Your task to perform on an android device: find which apps use the phone's location Image 0: 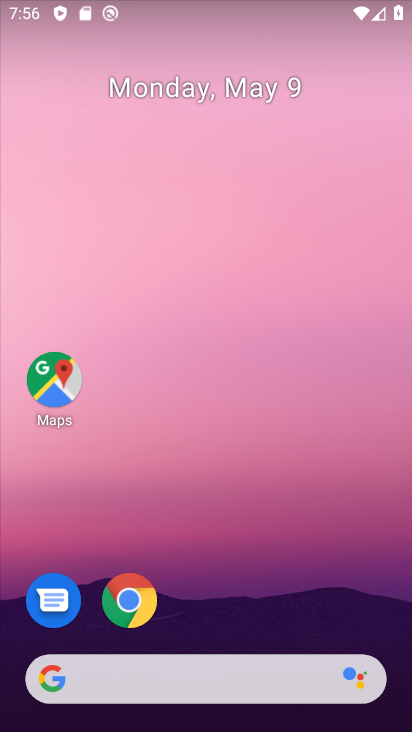
Step 0: drag from (255, 563) to (237, 51)
Your task to perform on an android device: find which apps use the phone's location Image 1: 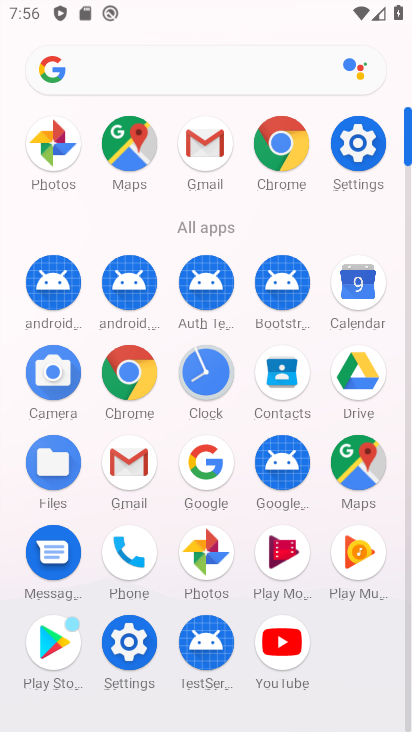
Step 1: drag from (11, 594) to (28, 313)
Your task to perform on an android device: find which apps use the phone's location Image 2: 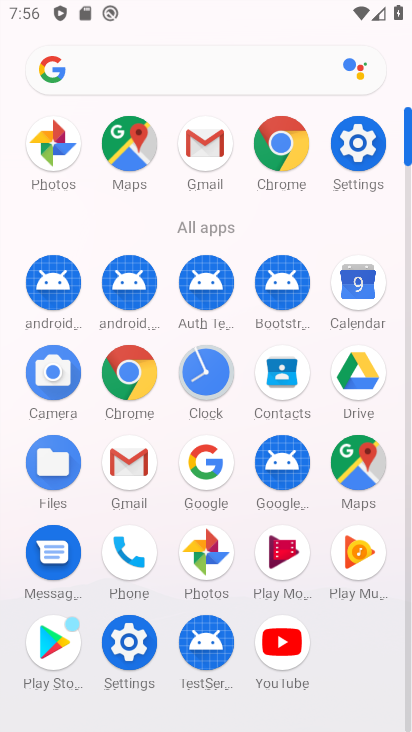
Step 2: click (129, 641)
Your task to perform on an android device: find which apps use the phone's location Image 3: 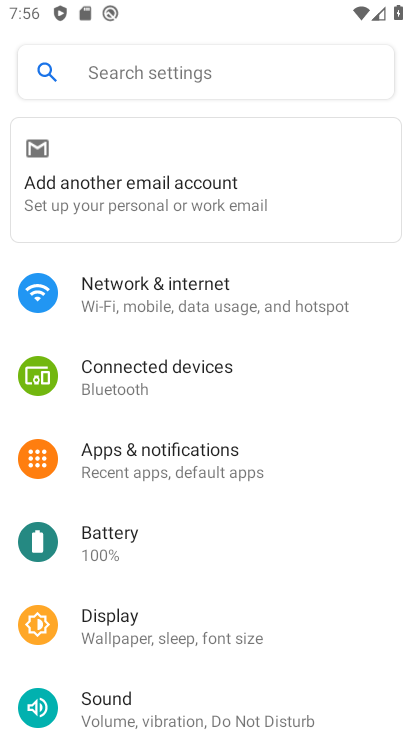
Step 3: drag from (272, 547) to (290, 190)
Your task to perform on an android device: find which apps use the phone's location Image 4: 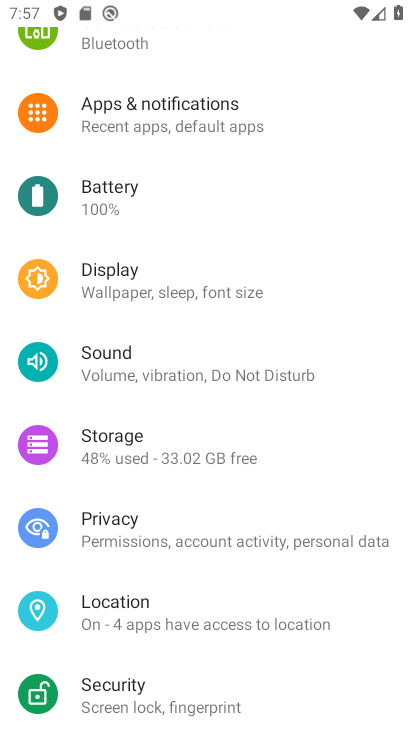
Step 4: drag from (204, 563) to (239, 234)
Your task to perform on an android device: find which apps use the phone's location Image 5: 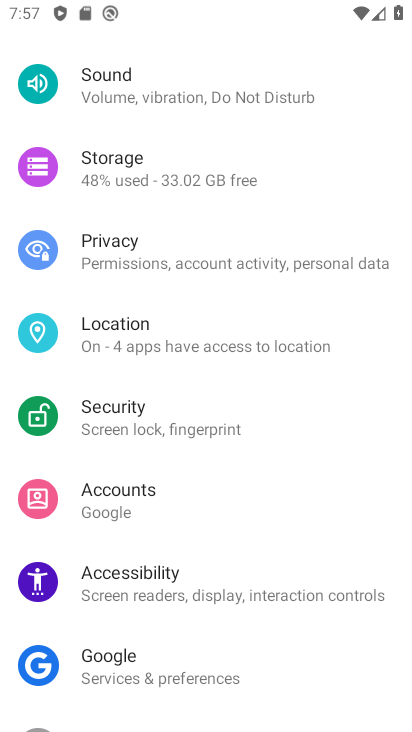
Step 5: drag from (234, 535) to (234, 160)
Your task to perform on an android device: find which apps use the phone's location Image 6: 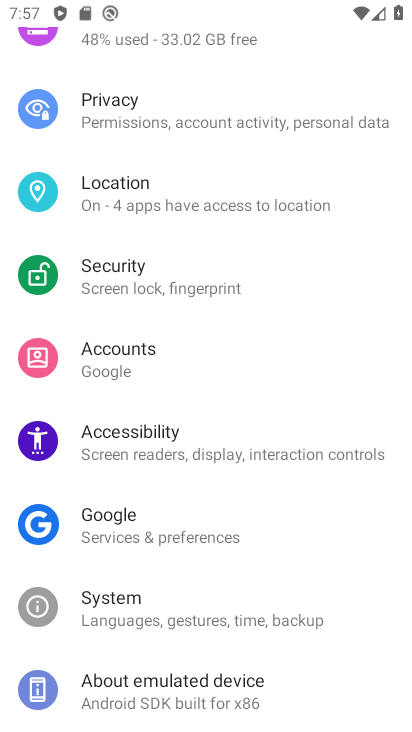
Step 6: click (204, 195)
Your task to perform on an android device: find which apps use the phone's location Image 7: 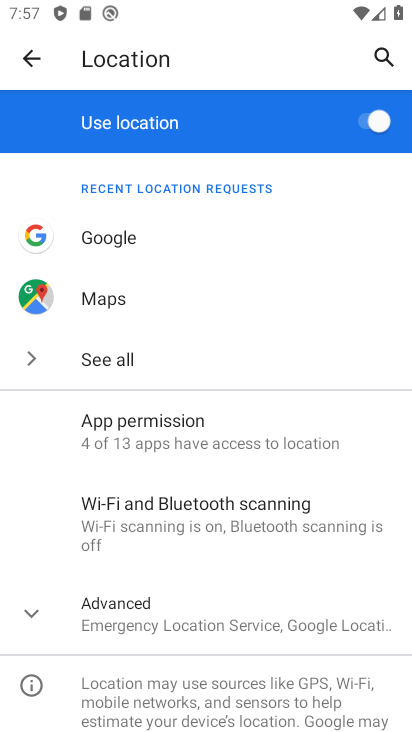
Step 7: click (70, 613)
Your task to perform on an android device: find which apps use the phone's location Image 8: 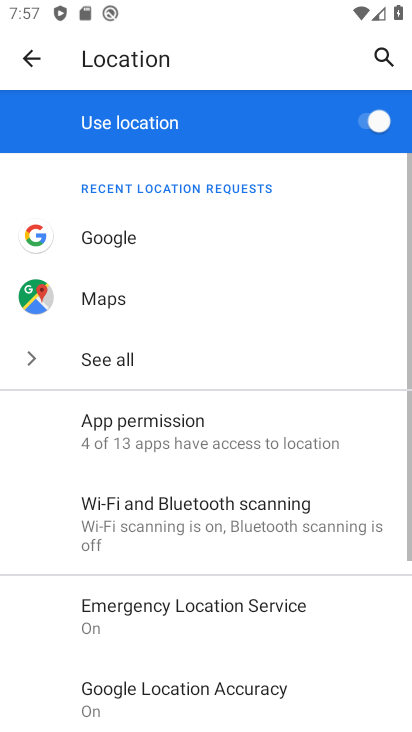
Step 8: drag from (290, 555) to (297, 258)
Your task to perform on an android device: find which apps use the phone's location Image 9: 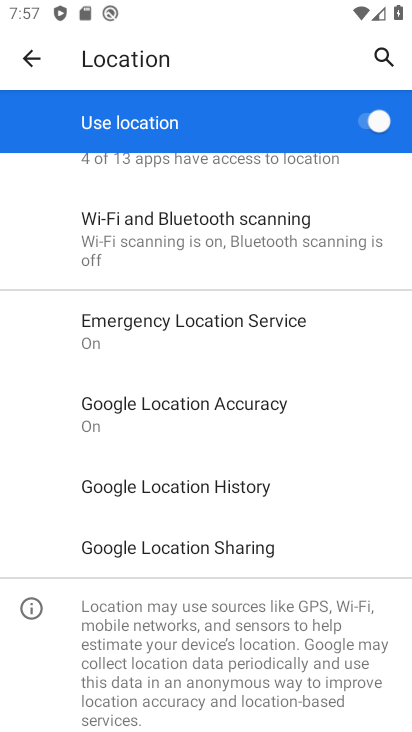
Step 9: drag from (274, 296) to (271, 511)
Your task to perform on an android device: find which apps use the phone's location Image 10: 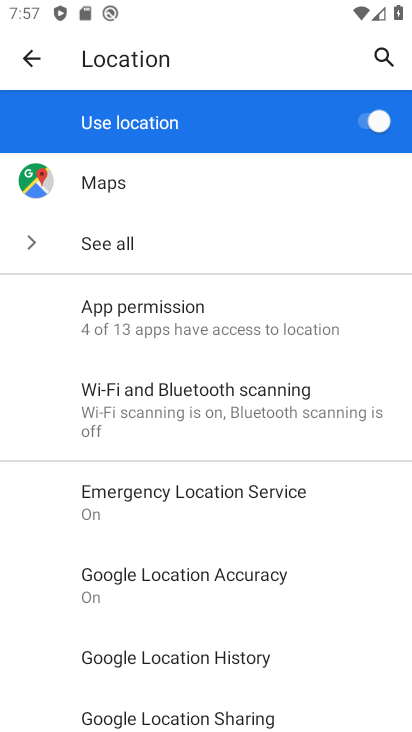
Step 10: click (218, 314)
Your task to perform on an android device: find which apps use the phone's location Image 11: 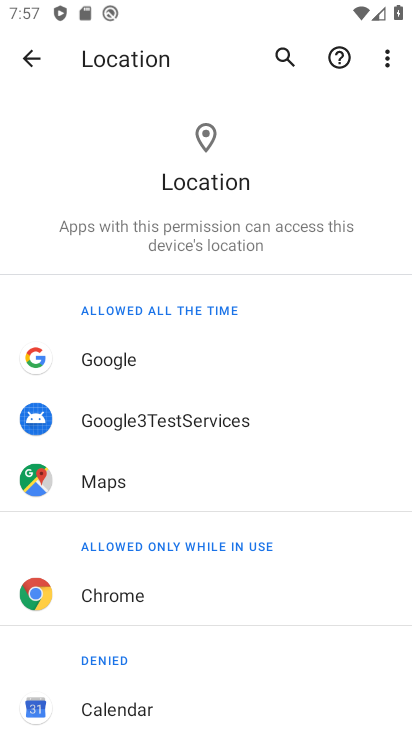
Step 11: task complete